Your task to perform on an android device: delete location history Image 0: 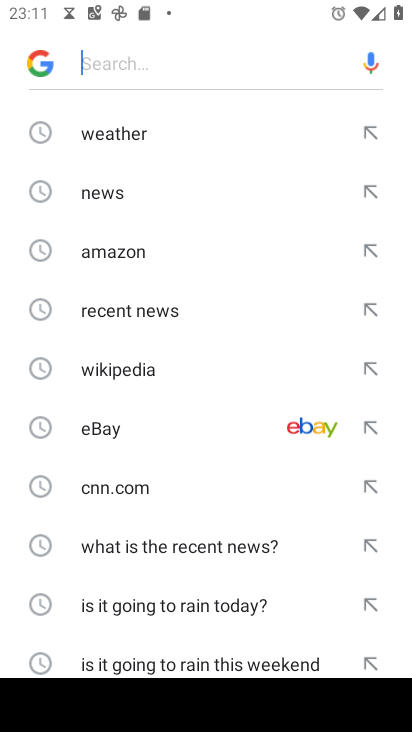
Step 0: press home button
Your task to perform on an android device: delete location history Image 1: 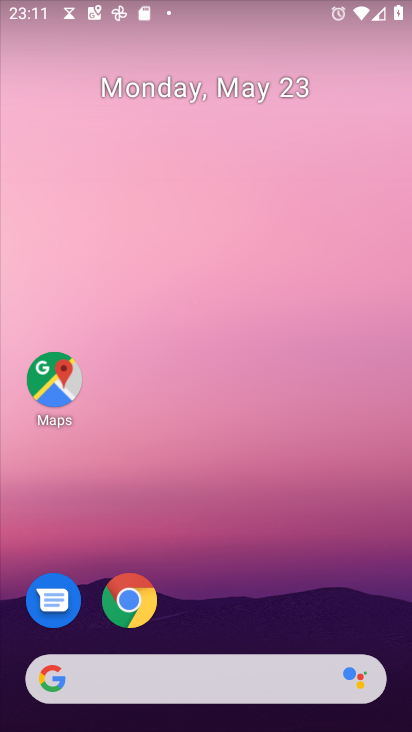
Step 1: drag from (205, 711) to (204, 108)
Your task to perform on an android device: delete location history Image 2: 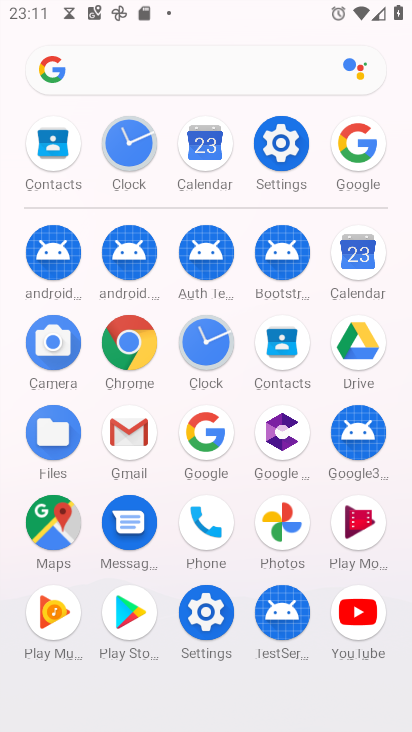
Step 2: click (59, 517)
Your task to perform on an android device: delete location history Image 3: 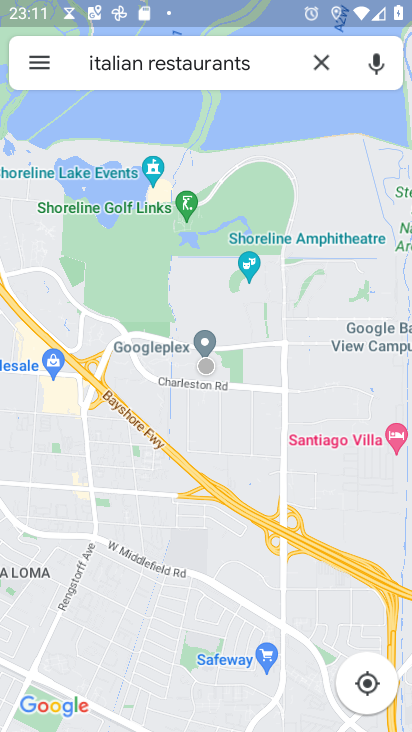
Step 3: click (36, 61)
Your task to perform on an android device: delete location history Image 4: 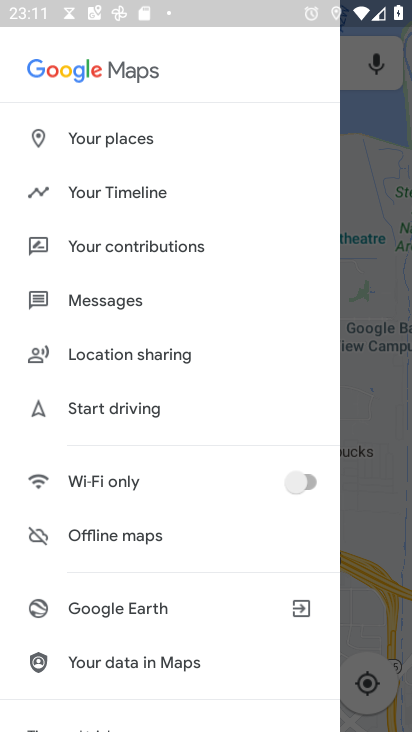
Step 4: drag from (144, 673) to (138, 311)
Your task to perform on an android device: delete location history Image 5: 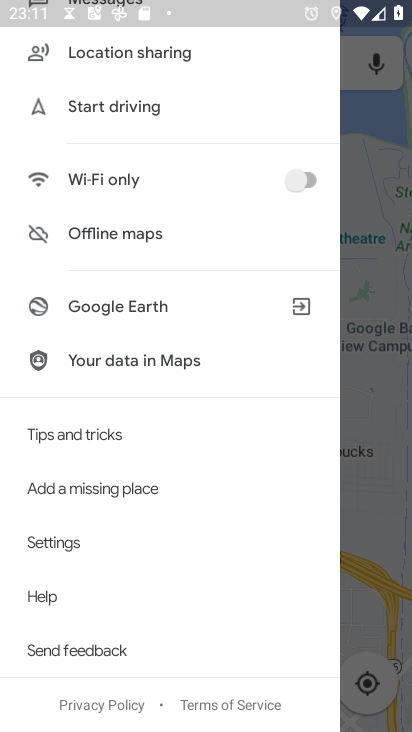
Step 5: drag from (193, 102) to (210, 607)
Your task to perform on an android device: delete location history Image 6: 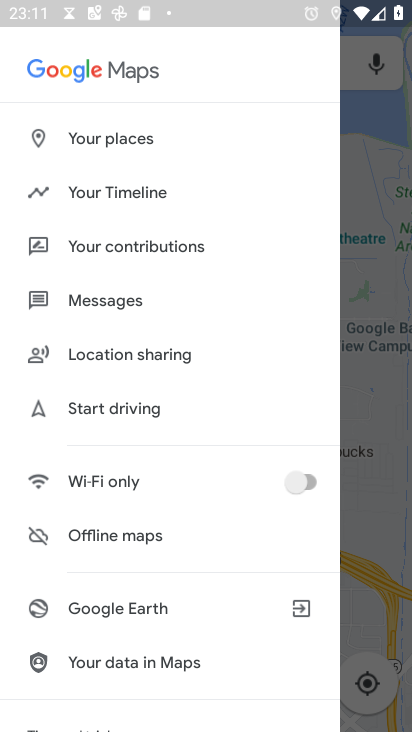
Step 6: click (123, 185)
Your task to perform on an android device: delete location history Image 7: 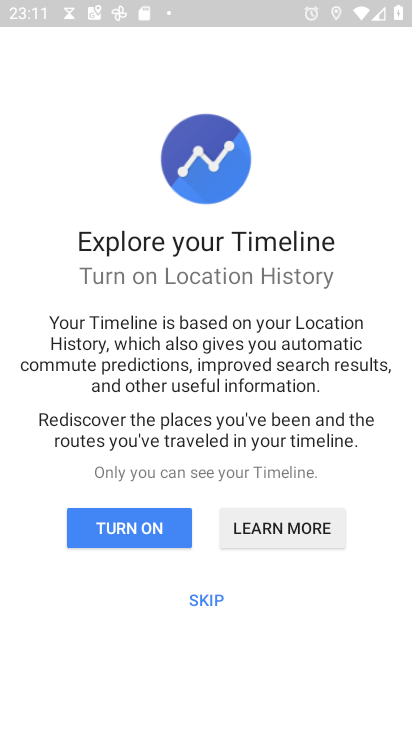
Step 7: click (211, 593)
Your task to perform on an android device: delete location history Image 8: 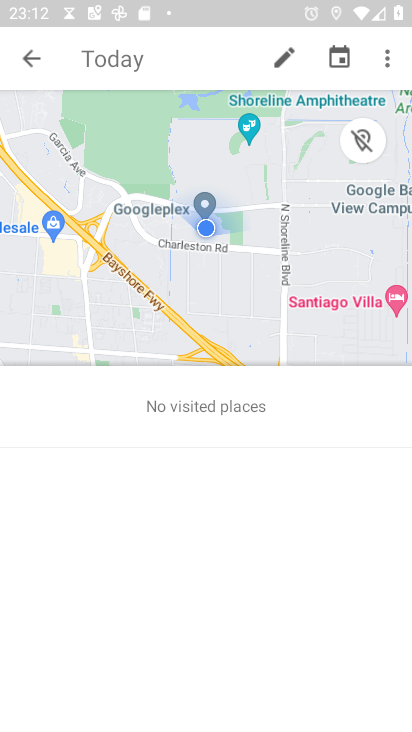
Step 8: click (388, 63)
Your task to perform on an android device: delete location history Image 9: 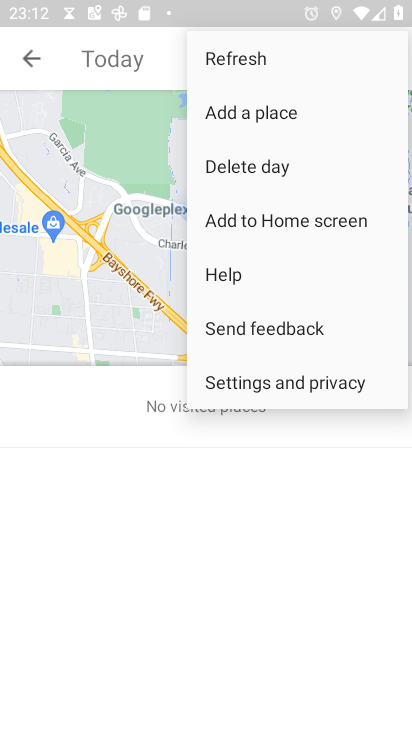
Step 9: click (277, 381)
Your task to perform on an android device: delete location history Image 10: 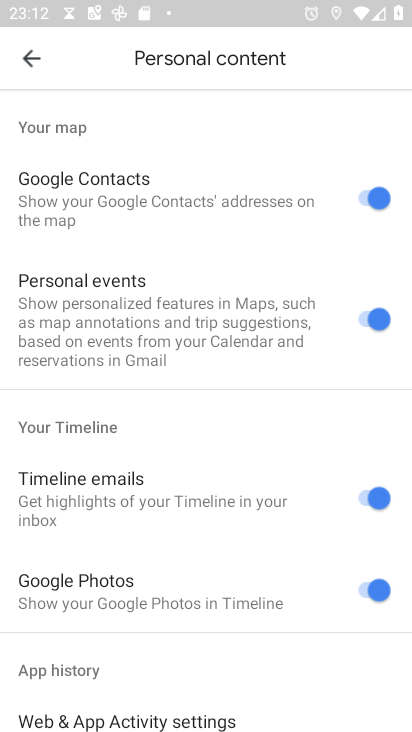
Step 10: drag from (177, 692) to (185, 299)
Your task to perform on an android device: delete location history Image 11: 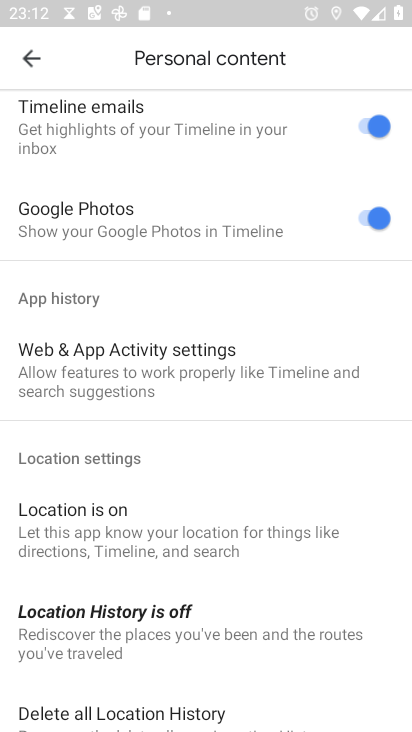
Step 11: drag from (140, 676) to (140, 399)
Your task to perform on an android device: delete location history Image 12: 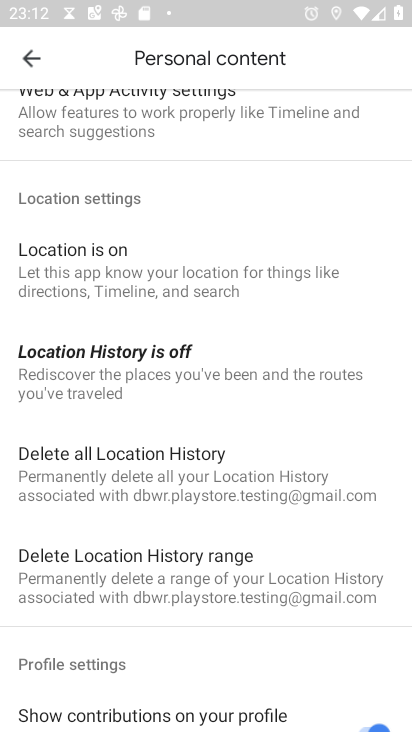
Step 12: click (146, 480)
Your task to perform on an android device: delete location history Image 13: 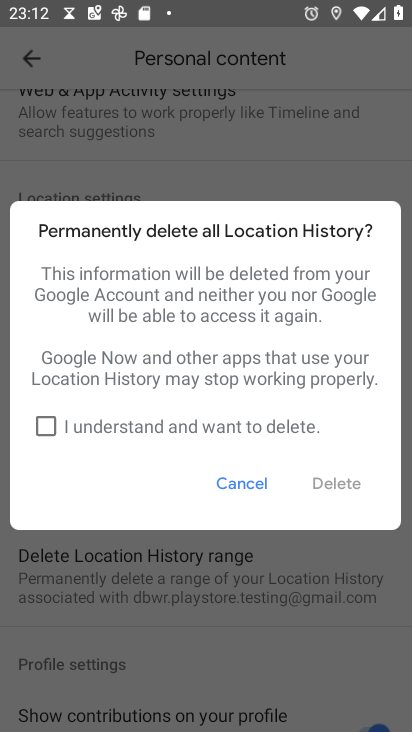
Step 13: click (48, 425)
Your task to perform on an android device: delete location history Image 14: 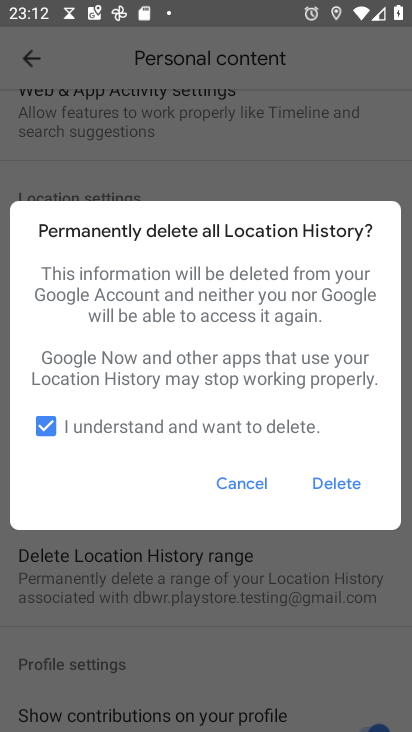
Step 14: click (339, 481)
Your task to perform on an android device: delete location history Image 15: 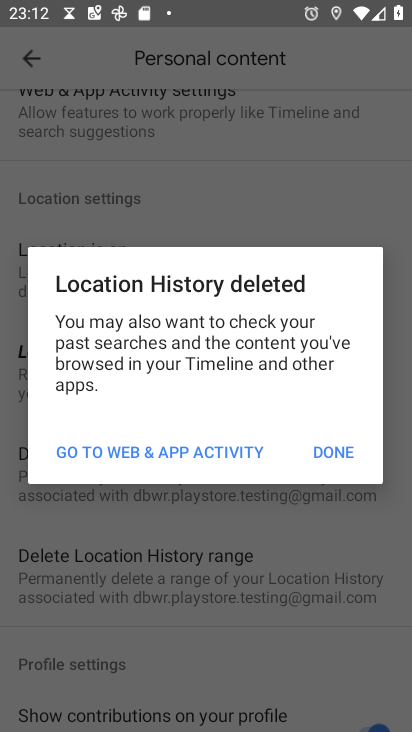
Step 15: click (331, 452)
Your task to perform on an android device: delete location history Image 16: 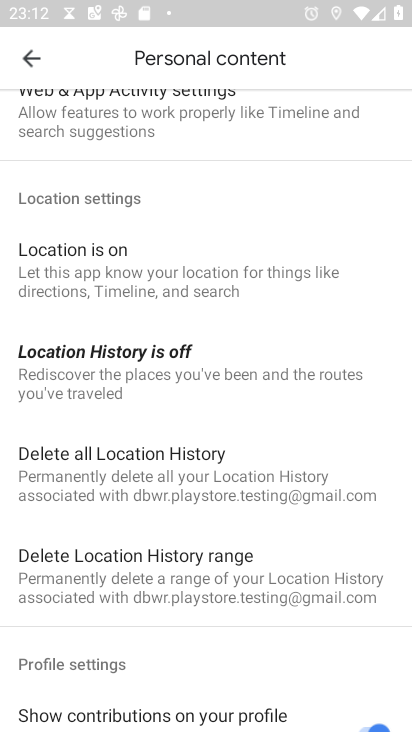
Step 16: task complete